Your task to perform on an android device: turn off javascript in the chrome app Image 0: 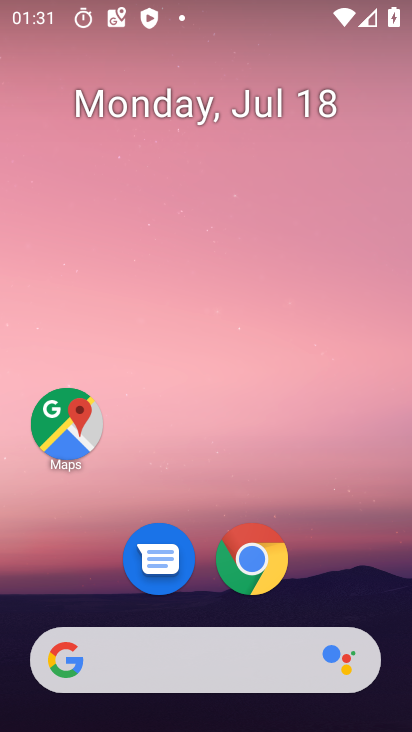
Step 0: click (246, 568)
Your task to perform on an android device: turn off javascript in the chrome app Image 1: 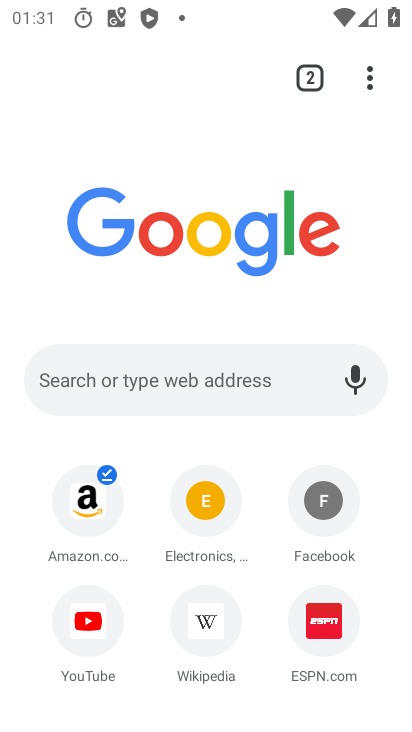
Step 1: click (359, 76)
Your task to perform on an android device: turn off javascript in the chrome app Image 2: 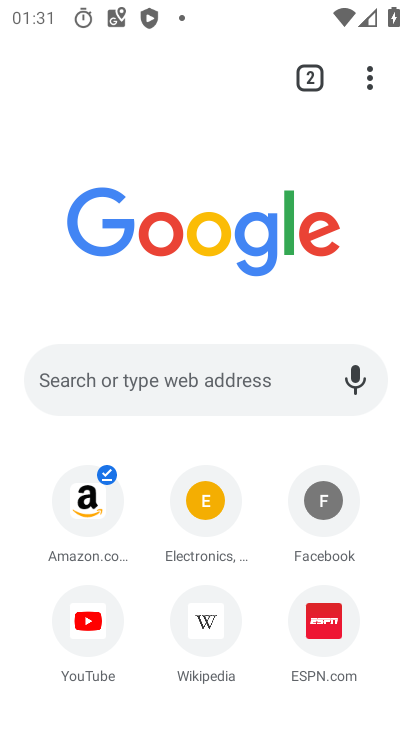
Step 2: drag from (363, 73) to (131, 618)
Your task to perform on an android device: turn off javascript in the chrome app Image 3: 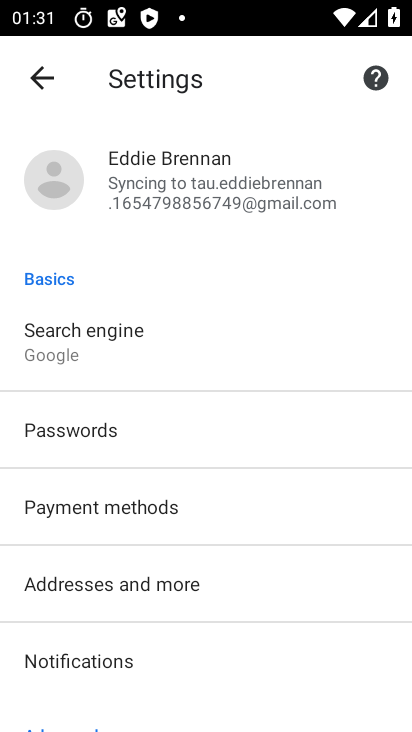
Step 3: drag from (131, 614) to (226, 146)
Your task to perform on an android device: turn off javascript in the chrome app Image 4: 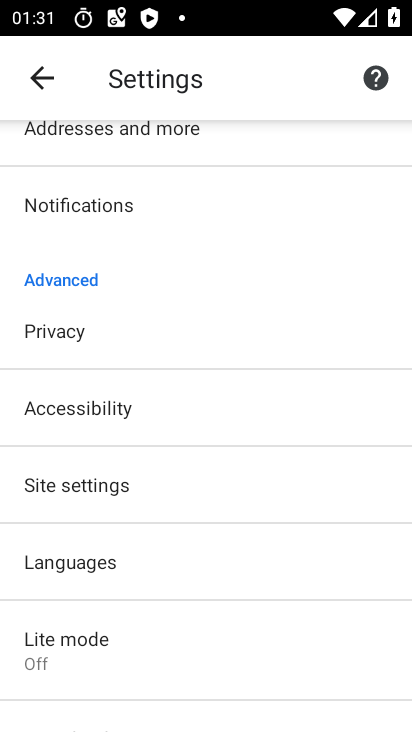
Step 4: click (113, 499)
Your task to perform on an android device: turn off javascript in the chrome app Image 5: 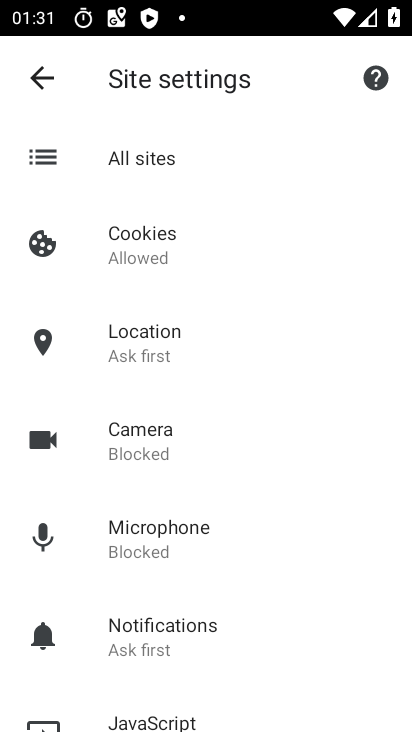
Step 5: click (155, 718)
Your task to perform on an android device: turn off javascript in the chrome app Image 6: 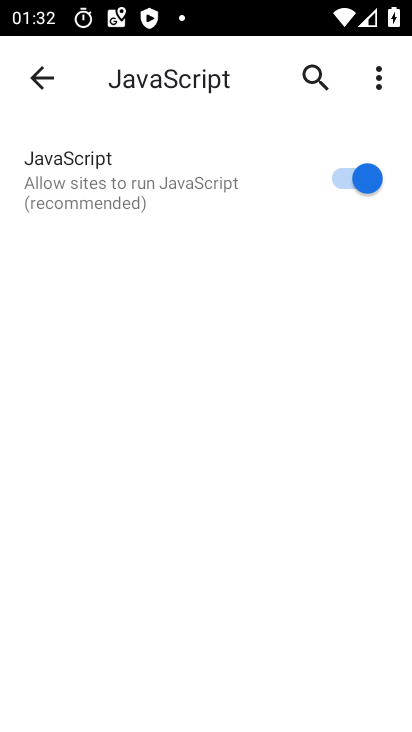
Step 6: click (360, 169)
Your task to perform on an android device: turn off javascript in the chrome app Image 7: 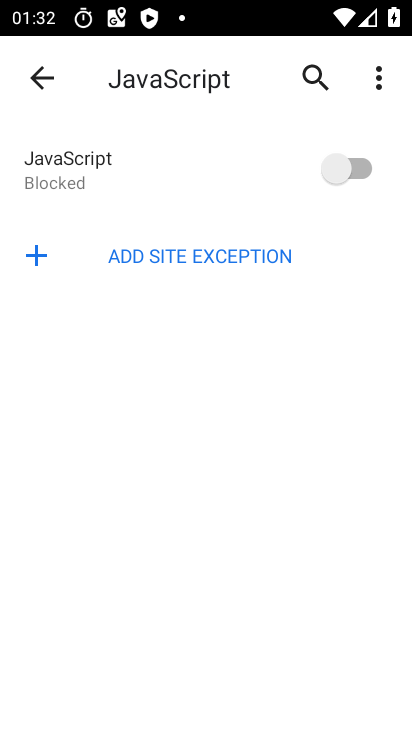
Step 7: task complete